Your task to perform on an android device: Open Reddit.com Image 0: 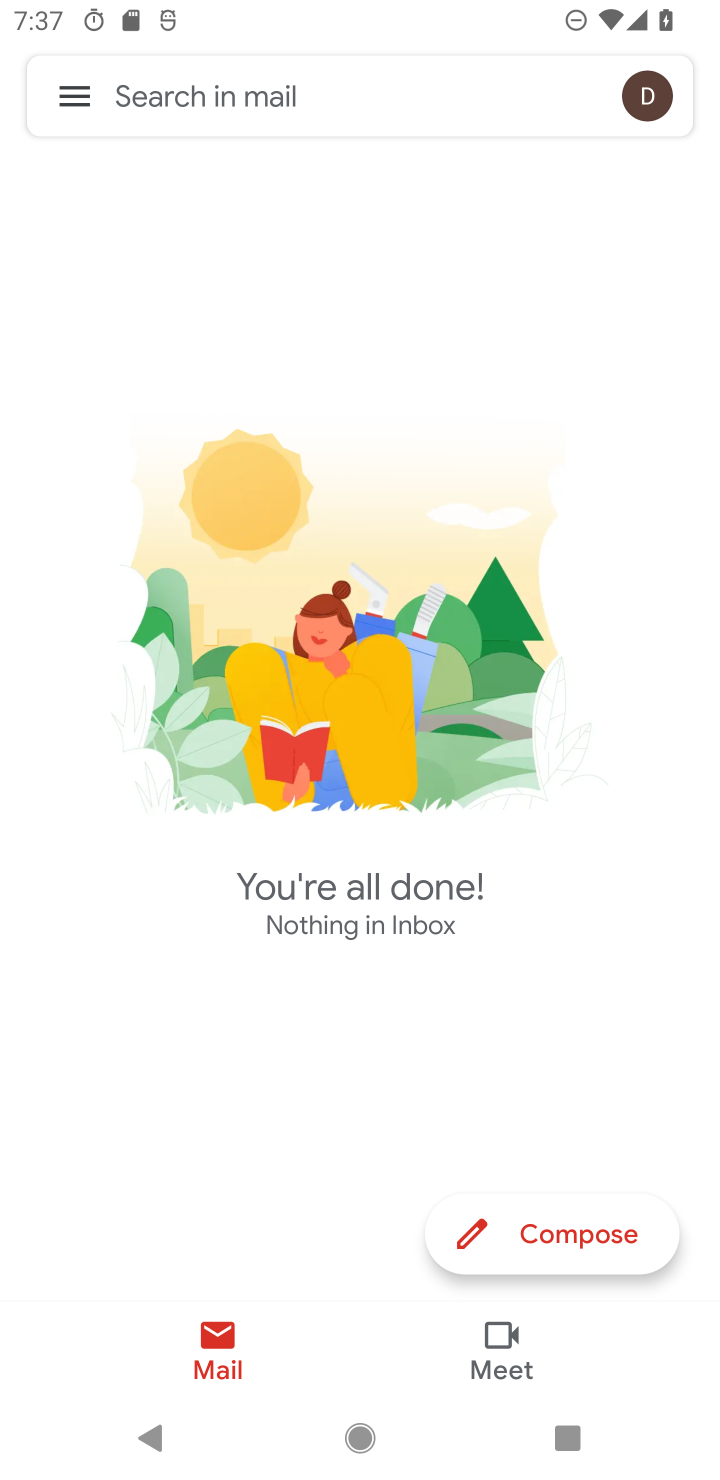
Step 0: press home button
Your task to perform on an android device: Open Reddit.com Image 1: 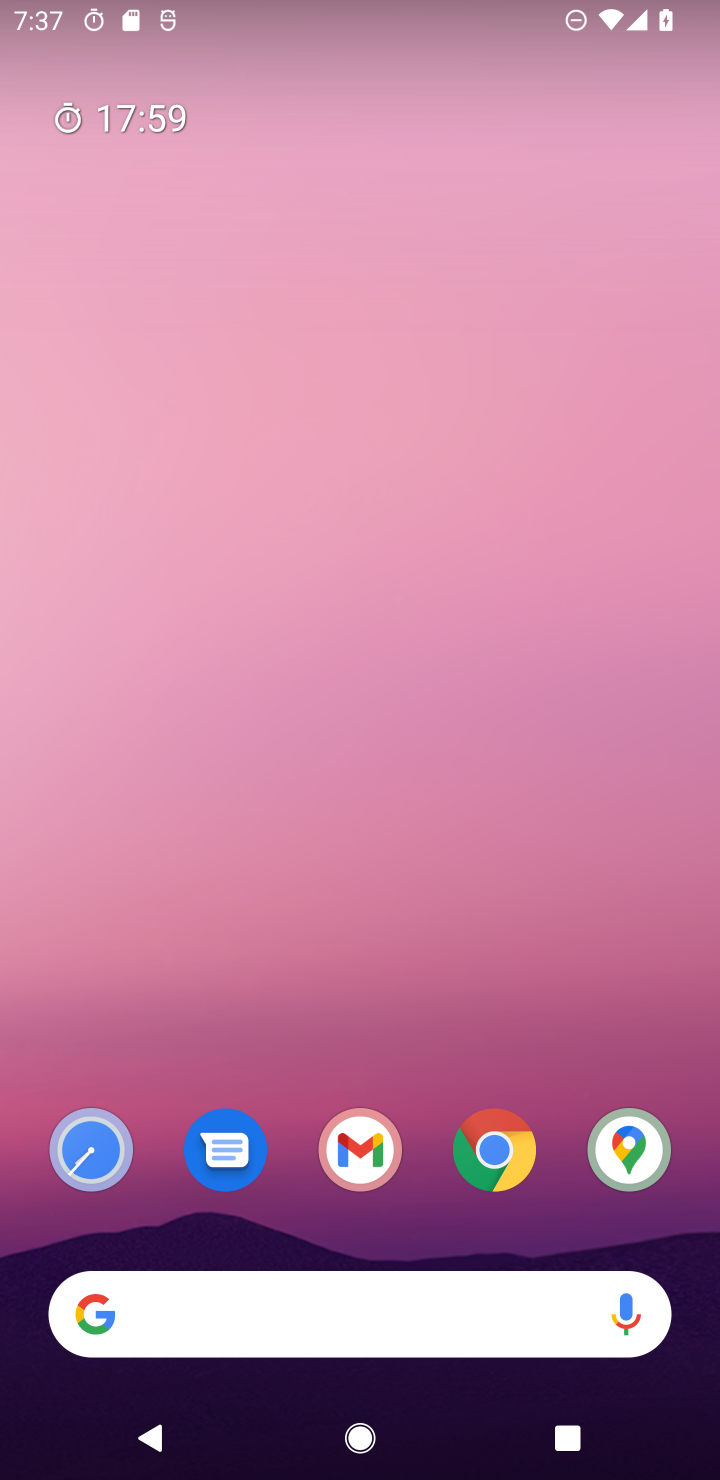
Step 1: click (488, 1170)
Your task to perform on an android device: Open Reddit.com Image 2: 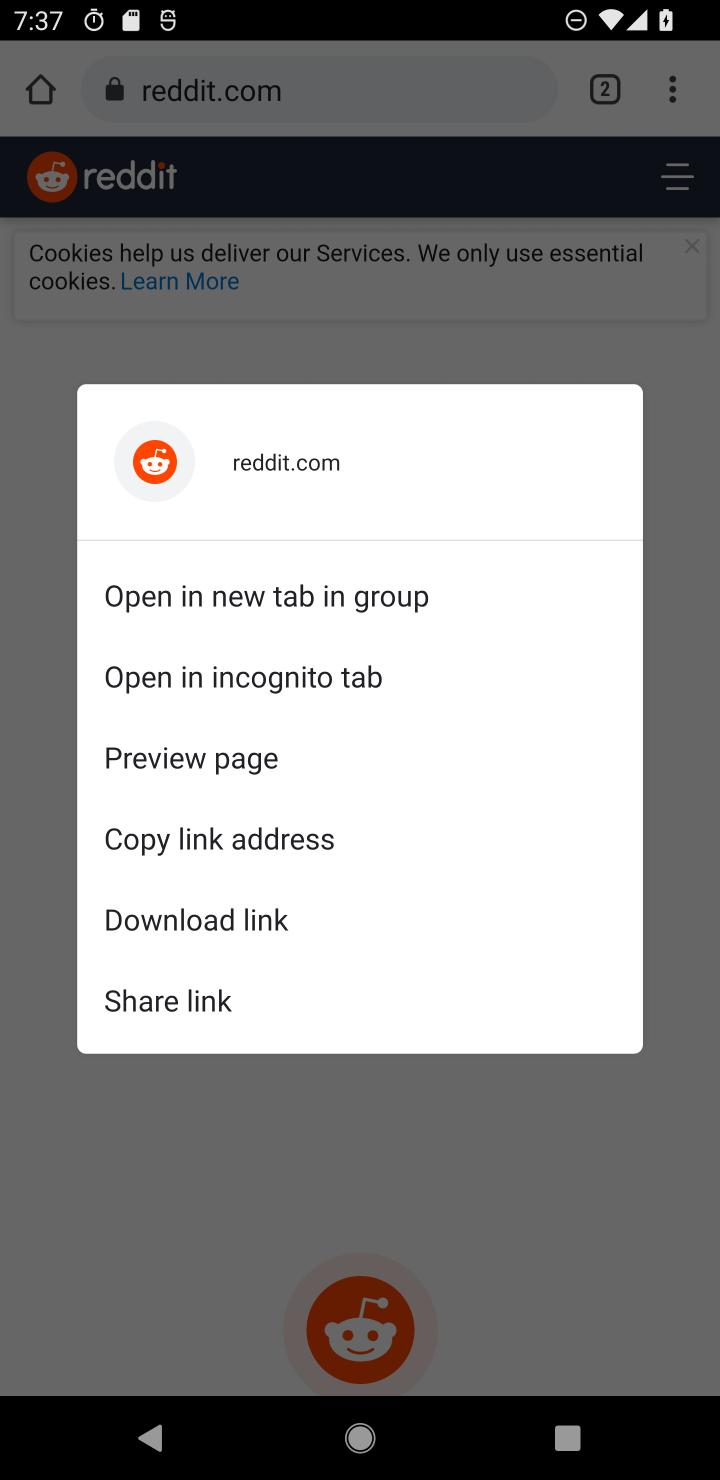
Step 2: task complete